Your task to perform on an android device: Open display settings Image 0: 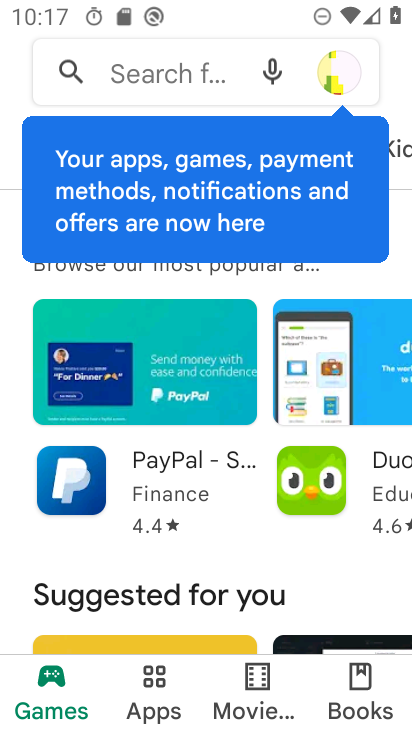
Step 0: press back button
Your task to perform on an android device: Open display settings Image 1: 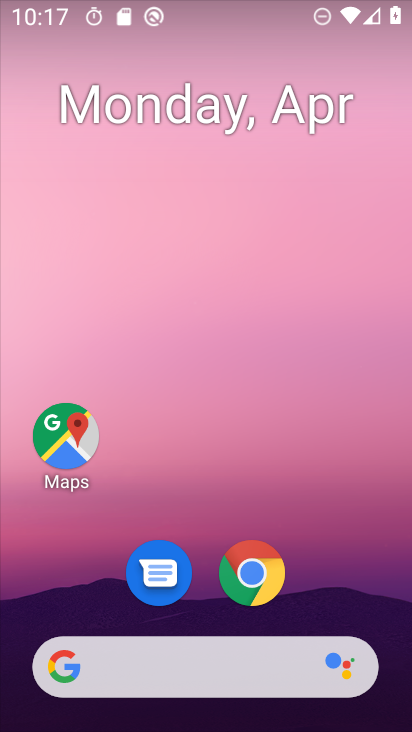
Step 1: drag from (283, 481) to (208, 11)
Your task to perform on an android device: Open display settings Image 2: 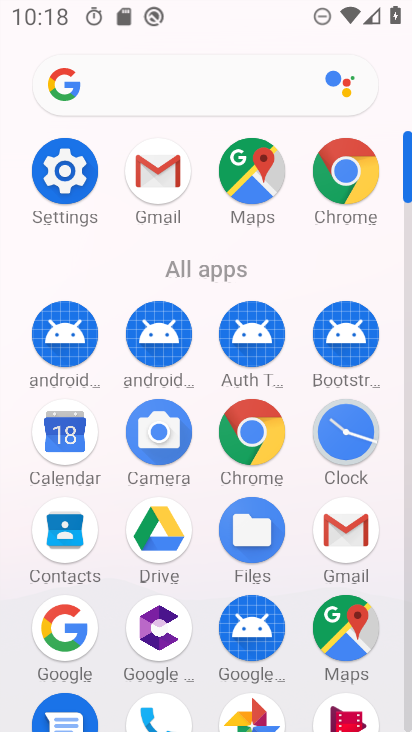
Step 2: click (73, 147)
Your task to perform on an android device: Open display settings Image 3: 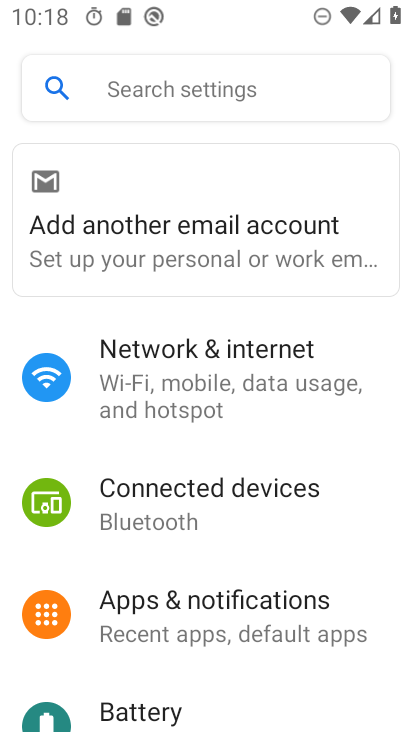
Step 3: drag from (206, 491) to (210, 199)
Your task to perform on an android device: Open display settings Image 4: 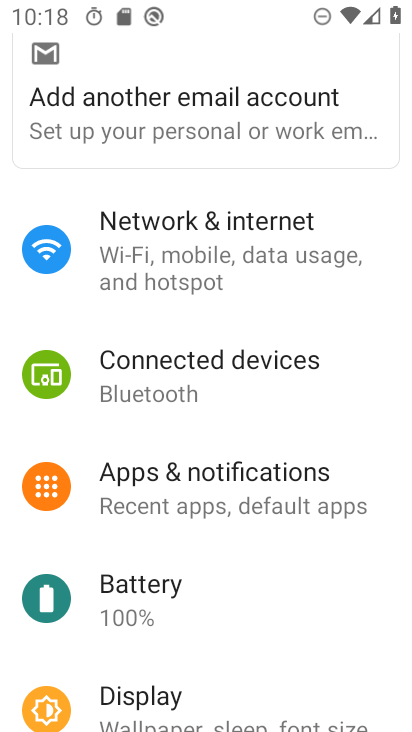
Step 4: drag from (250, 619) to (312, 300)
Your task to perform on an android device: Open display settings Image 5: 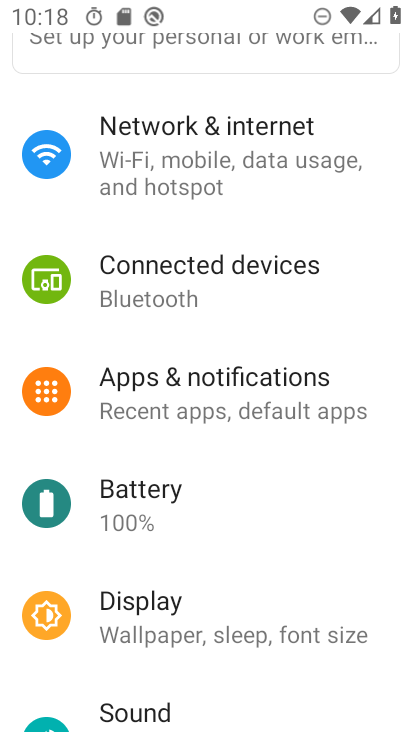
Step 5: click (197, 604)
Your task to perform on an android device: Open display settings Image 6: 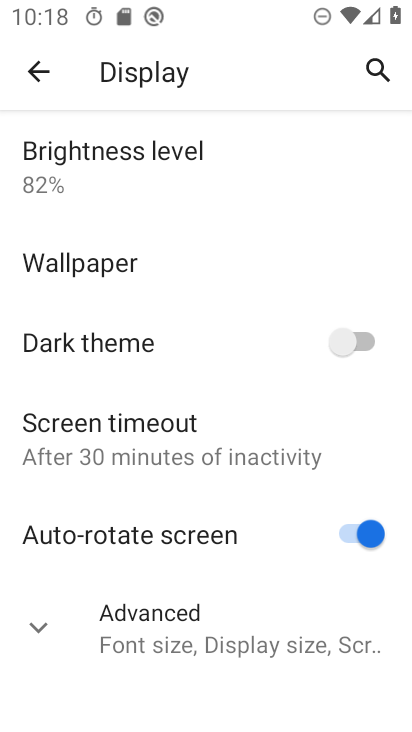
Step 6: task complete